Your task to perform on an android device: Search for Mexican restaurants on Maps Image 0: 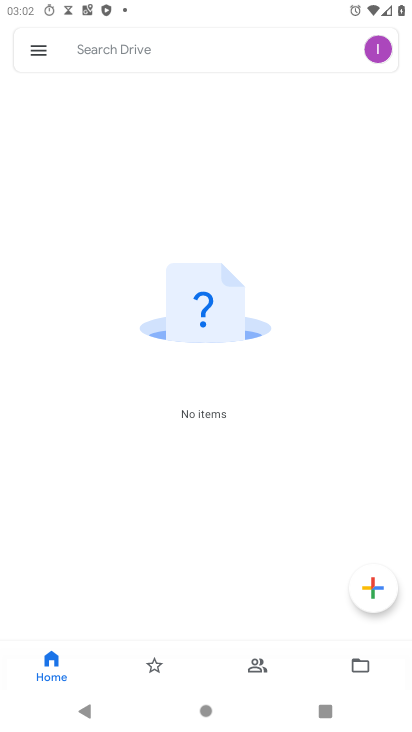
Step 0: press home button
Your task to perform on an android device: Search for Mexican restaurants on Maps Image 1: 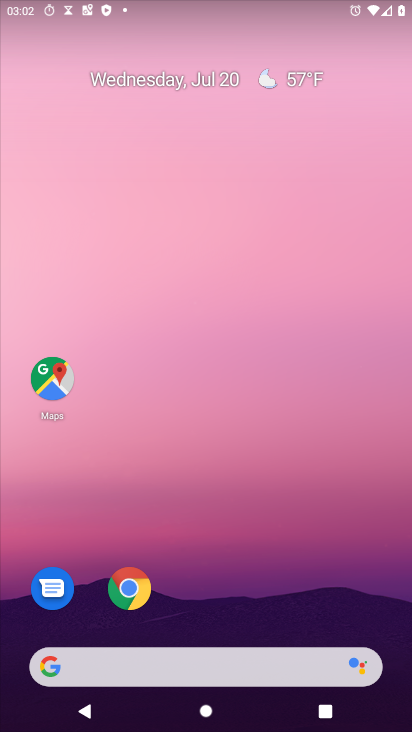
Step 1: drag from (226, 470) to (222, 170)
Your task to perform on an android device: Search for Mexican restaurants on Maps Image 2: 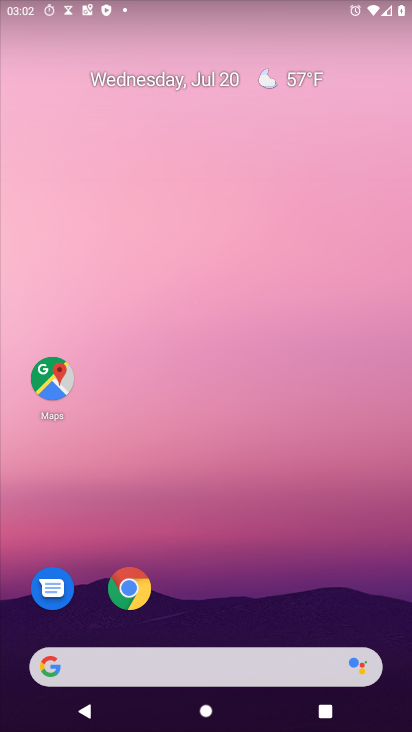
Step 2: drag from (282, 585) to (266, 77)
Your task to perform on an android device: Search for Mexican restaurants on Maps Image 3: 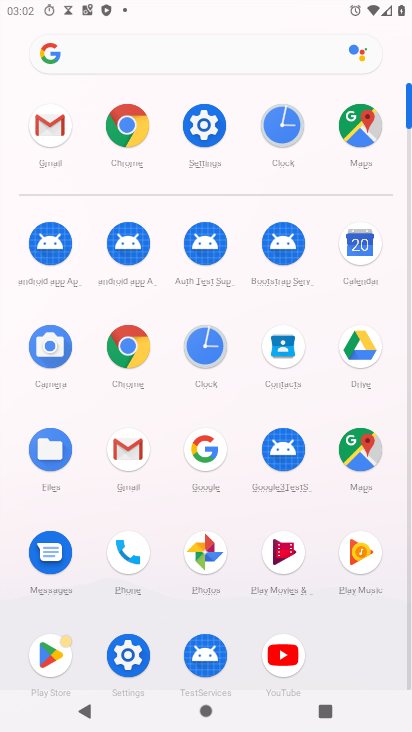
Step 3: click (367, 448)
Your task to perform on an android device: Search for Mexican restaurants on Maps Image 4: 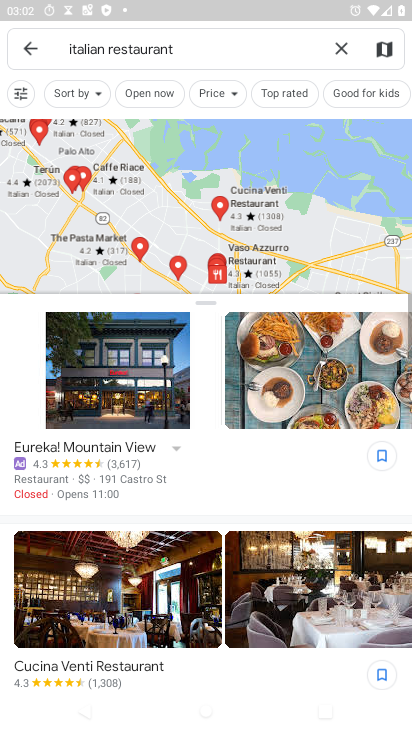
Step 4: click (338, 42)
Your task to perform on an android device: Search for Mexican restaurants on Maps Image 5: 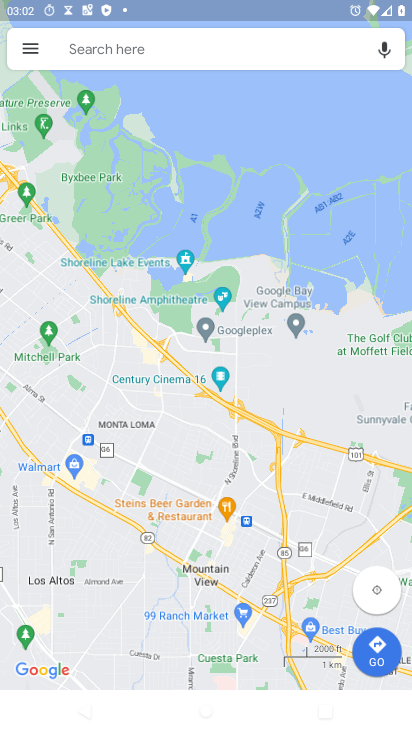
Step 5: click (251, 41)
Your task to perform on an android device: Search for Mexican restaurants on Maps Image 6: 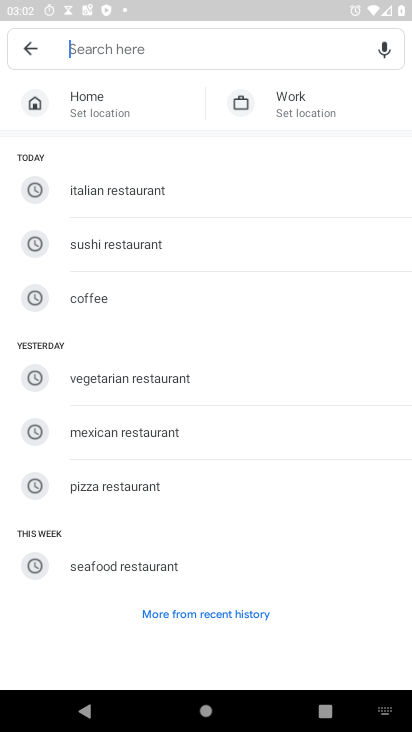
Step 6: click (117, 451)
Your task to perform on an android device: Search for Mexican restaurants on Maps Image 7: 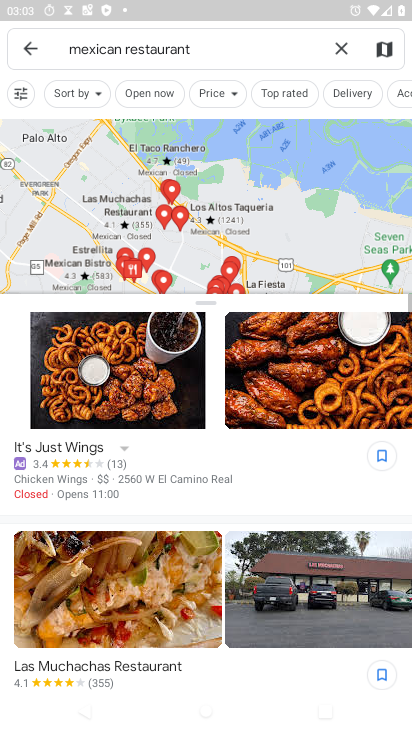
Step 7: task complete